Your task to perform on an android device: turn notification dots off Image 0: 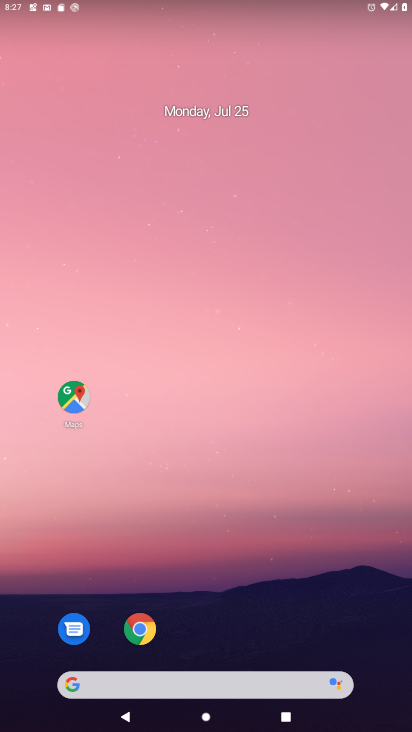
Step 0: drag from (159, 679) to (221, 86)
Your task to perform on an android device: turn notification dots off Image 1: 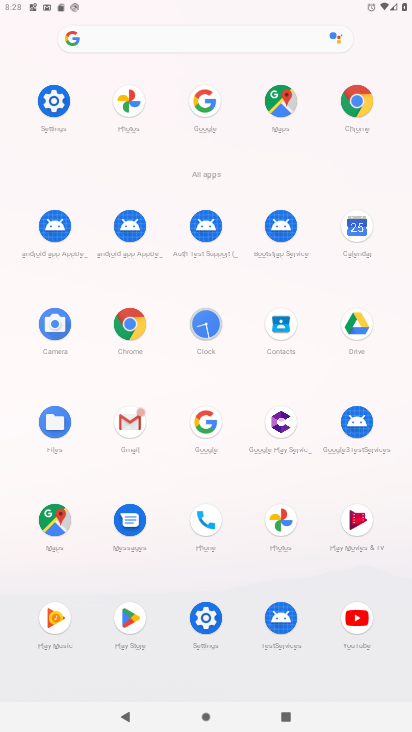
Step 1: click (54, 100)
Your task to perform on an android device: turn notification dots off Image 2: 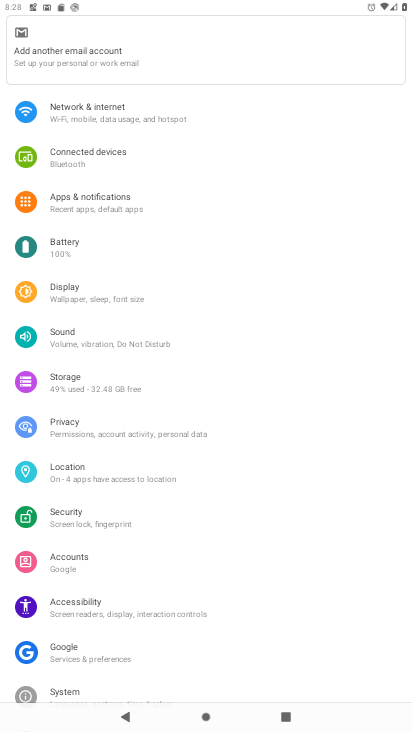
Step 2: click (79, 203)
Your task to perform on an android device: turn notification dots off Image 3: 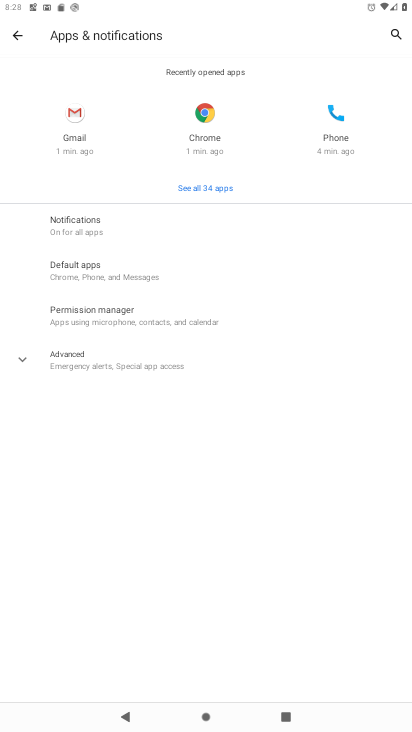
Step 3: click (92, 233)
Your task to perform on an android device: turn notification dots off Image 4: 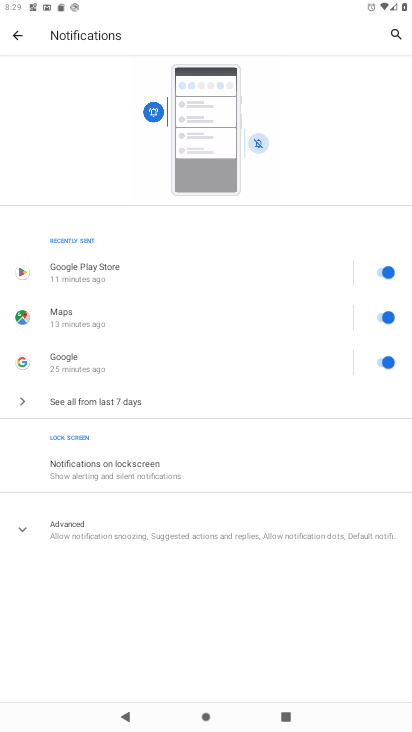
Step 4: click (138, 532)
Your task to perform on an android device: turn notification dots off Image 5: 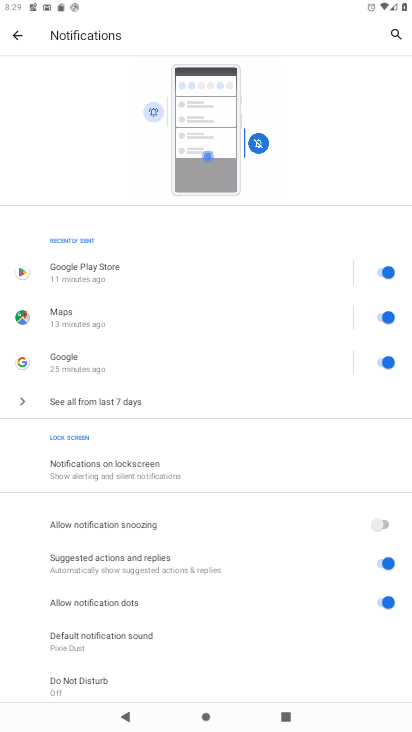
Step 5: click (394, 602)
Your task to perform on an android device: turn notification dots off Image 6: 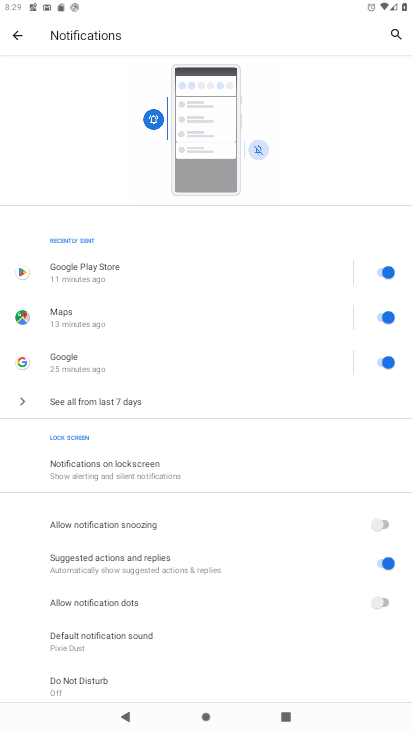
Step 6: task complete